Your task to perform on an android device: turn on javascript in the chrome app Image 0: 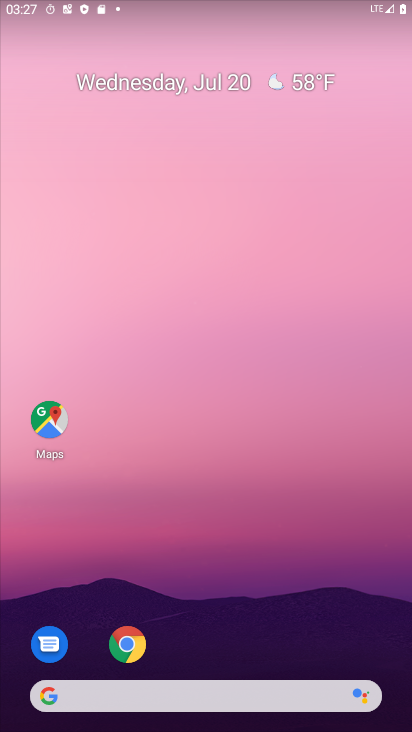
Step 0: click (122, 642)
Your task to perform on an android device: turn on javascript in the chrome app Image 1: 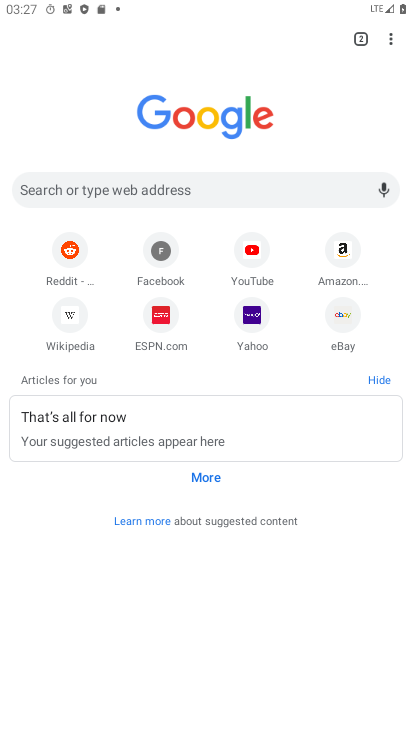
Step 1: click (390, 36)
Your task to perform on an android device: turn on javascript in the chrome app Image 2: 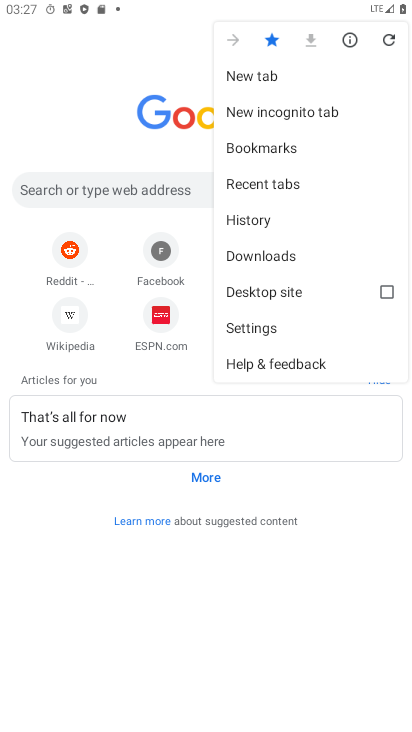
Step 2: click (245, 329)
Your task to perform on an android device: turn on javascript in the chrome app Image 3: 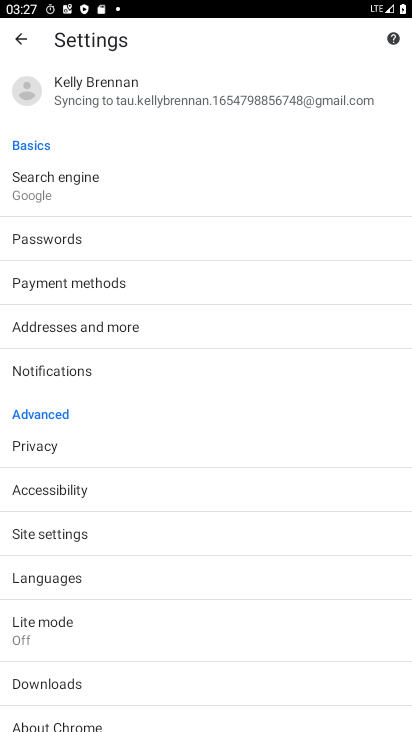
Step 3: click (61, 534)
Your task to perform on an android device: turn on javascript in the chrome app Image 4: 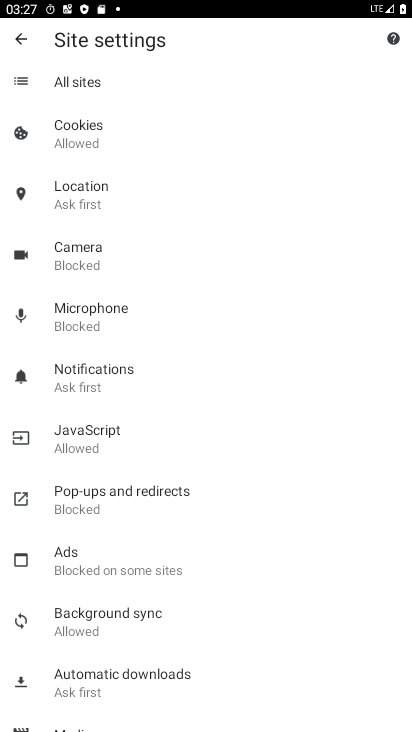
Step 4: click (90, 441)
Your task to perform on an android device: turn on javascript in the chrome app Image 5: 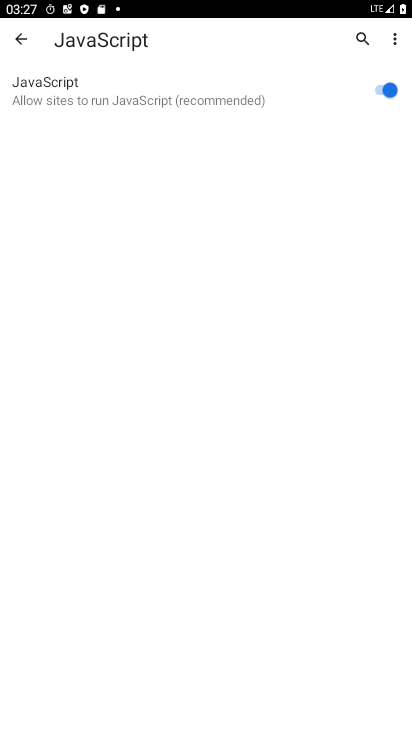
Step 5: task complete